Your task to perform on an android device: turn off location history Image 0: 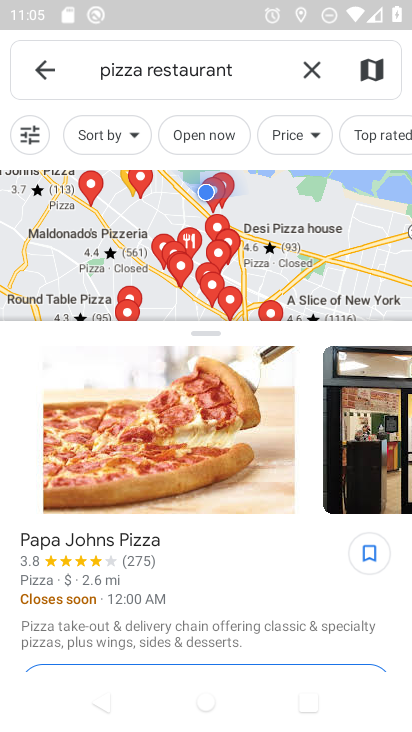
Step 0: press home button
Your task to perform on an android device: turn off location history Image 1: 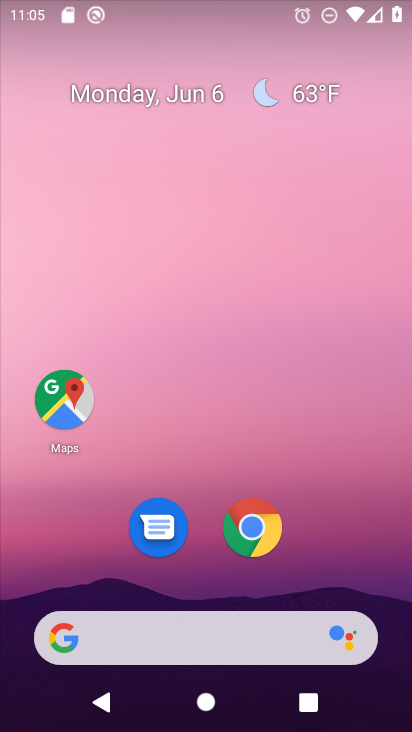
Step 1: drag from (379, 549) to (335, 123)
Your task to perform on an android device: turn off location history Image 2: 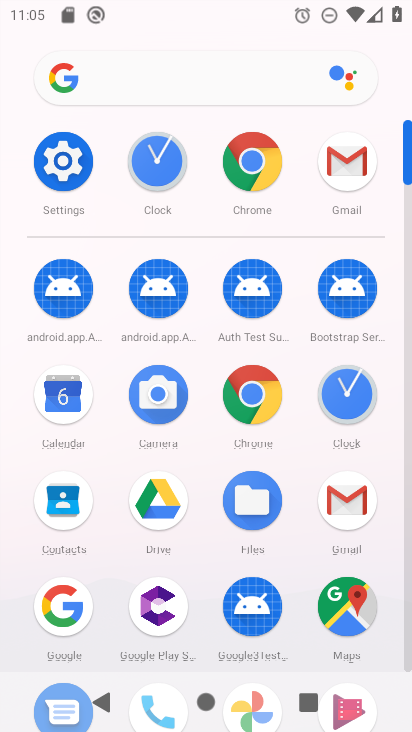
Step 2: click (55, 173)
Your task to perform on an android device: turn off location history Image 3: 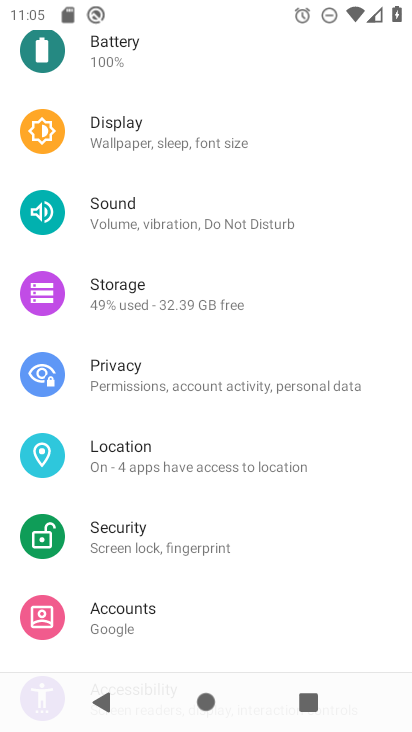
Step 3: drag from (340, 471) to (317, 269)
Your task to perform on an android device: turn off location history Image 4: 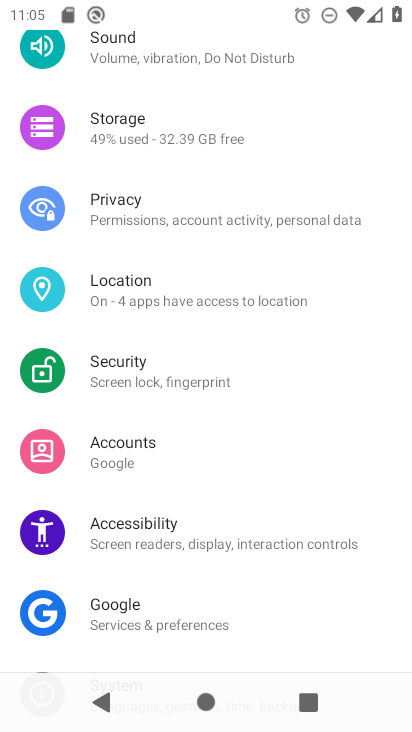
Step 4: click (283, 302)
Your task to perform on an android device: turn off location history Image 5: 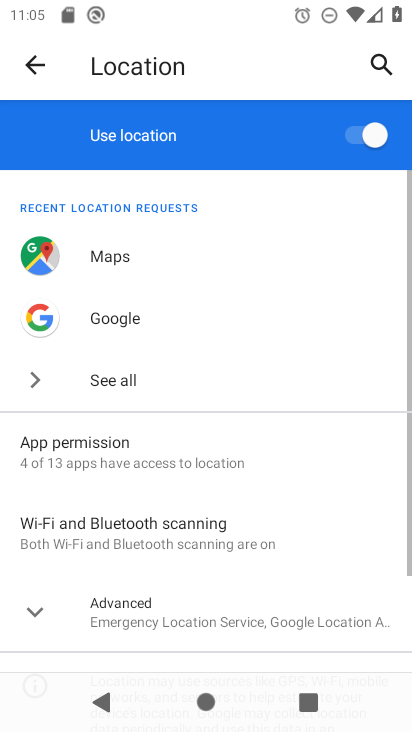
Step 5: drag from (336, 465) to (319, 317)
Your task to perform on an android device: turn off location history Image 6: 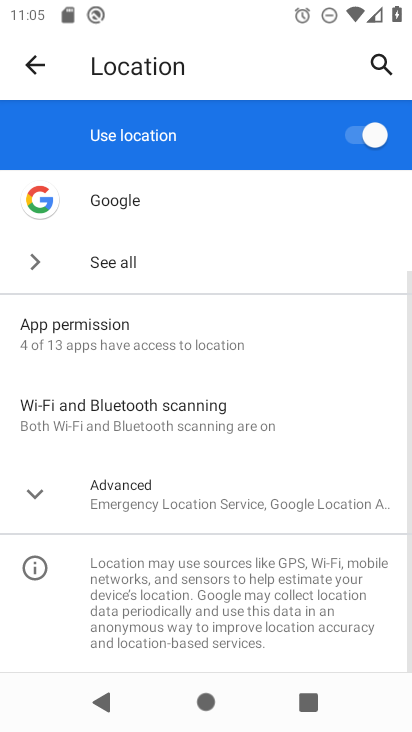
Step 6: click (308, 490)
Your task to perform on an android device: turn off location history Image 7: 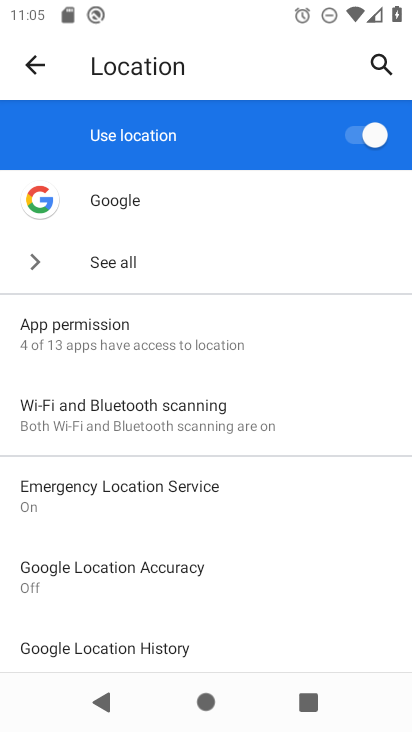
Step 7: drag from (296, 595) to (305, 425)
Your task to perform on an android device: turn off location history Image 8: 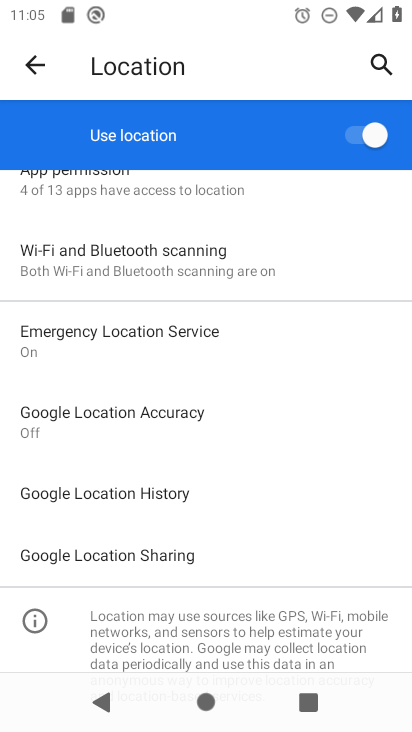
Step 8: click (184, 497)
Your task to perform on an android device: turn off location history Image 9: 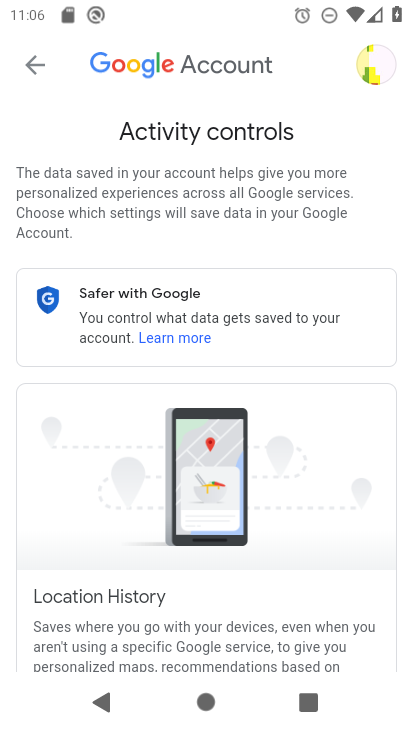
Step 9: drag from (349, 537) to (379, 728)
Your task to perform on an android device: turn off location history Image 10: 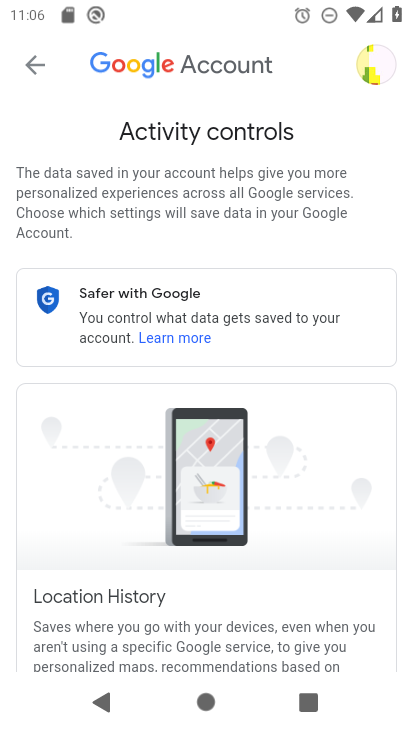
Step 10: drag from (324, 544) to (338, 267)
Your task to perform on an android device: turn off location history Image 11: 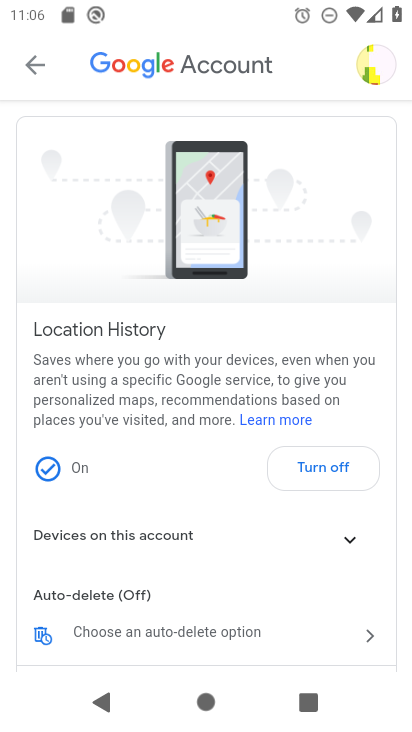
Step 11: click (322, 463)
Your task to perform on an android device: turn off location history Image 12: 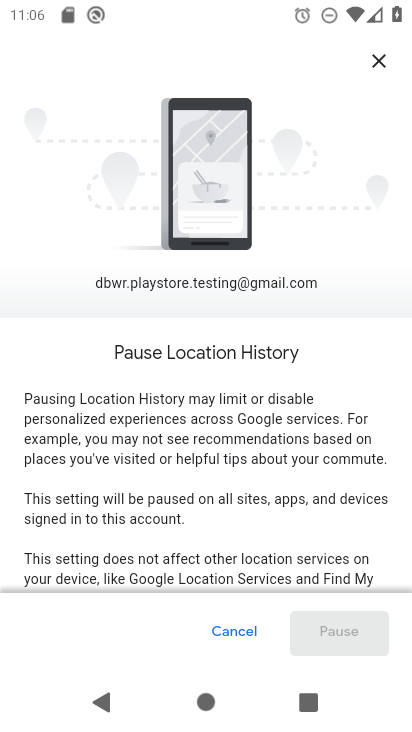
Step 12: drag from (289, 531) to (304, 96)
Your task to perform on an android device: turn off location history Image 13: 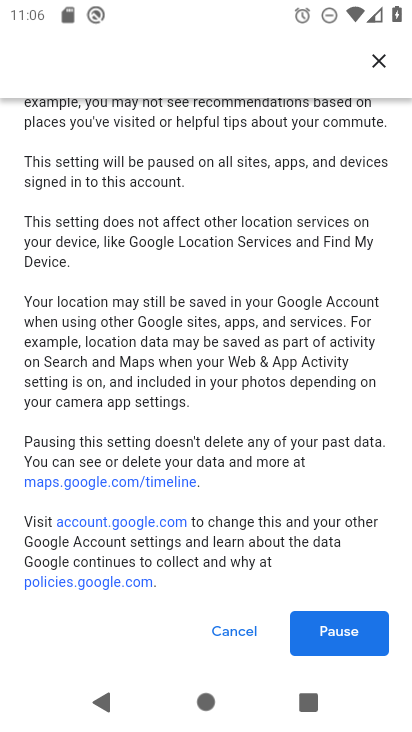
Step 13: click (365, 649)
Your task to perform on an android device: turn off location history Image 14: 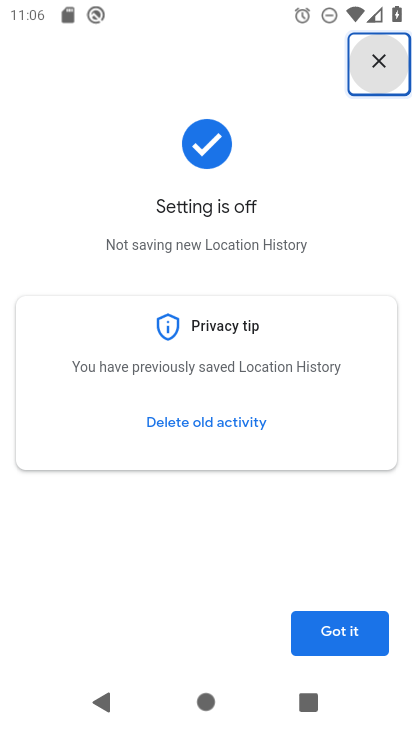
Step 14: task complete